Your task to perform on an android device: Check the weather Image 0: 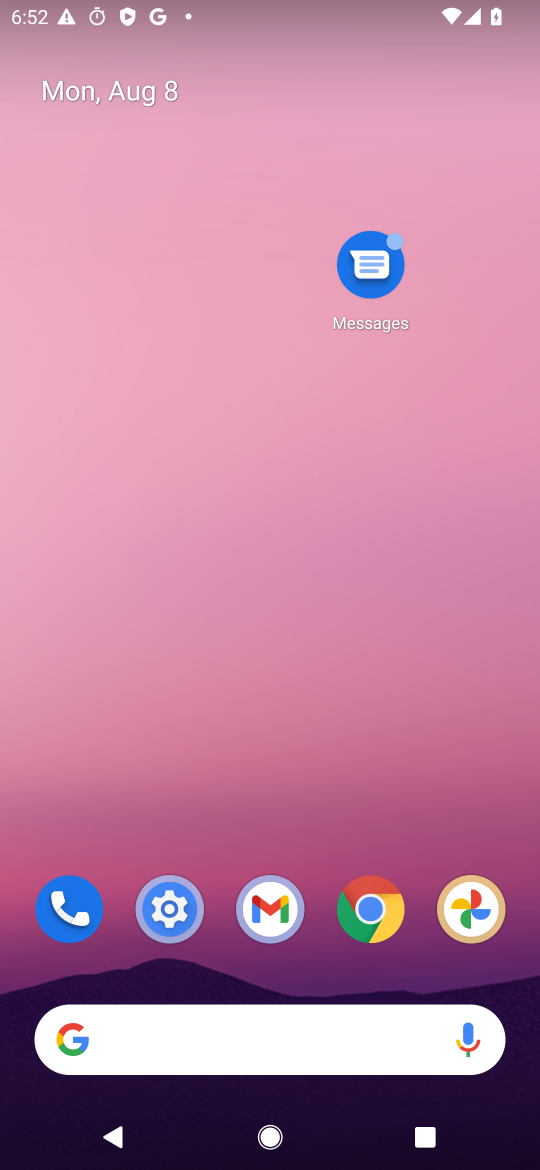
Step 0: press home button
Your task to perform on an android device: Check the weather Image 1: 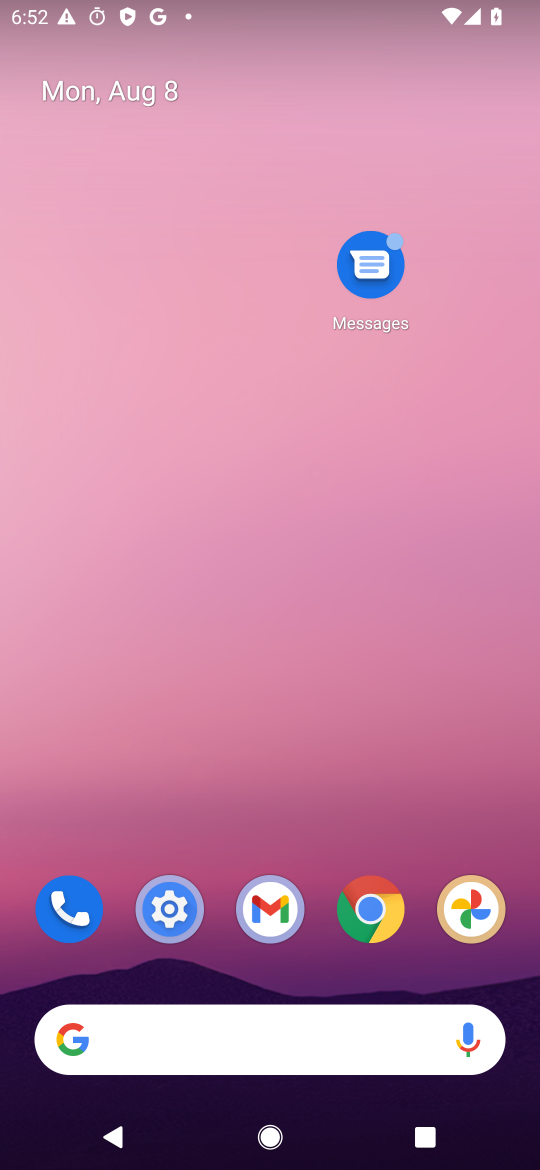
Step 1: click (198, 1025)
Your task to perform on an android device: Check the weather Image 2: 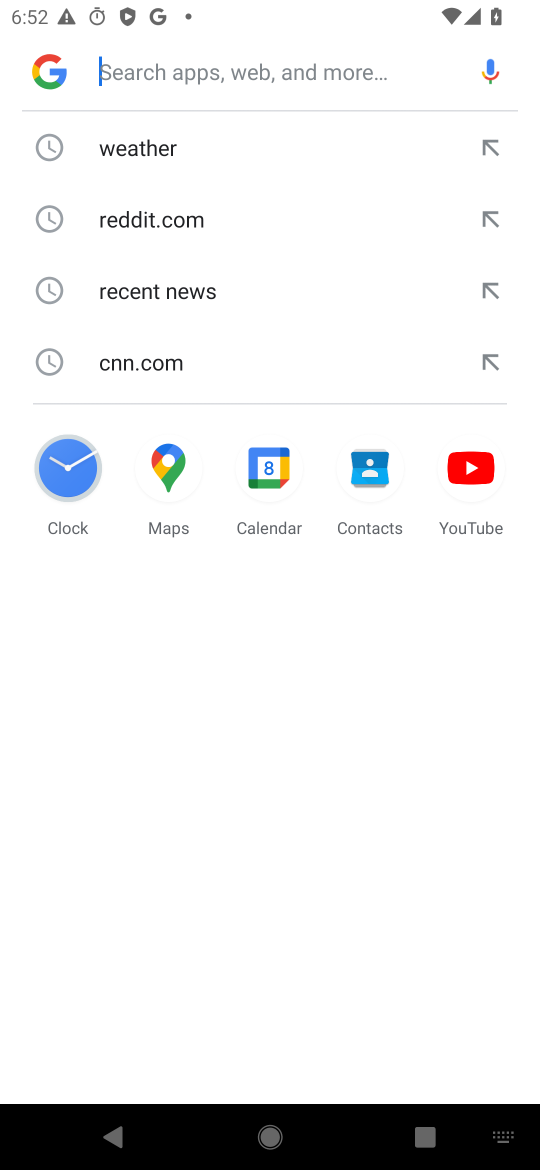
Step 2: click (120, 151)
Your task to perform on an android device: Check the weather Image 3: 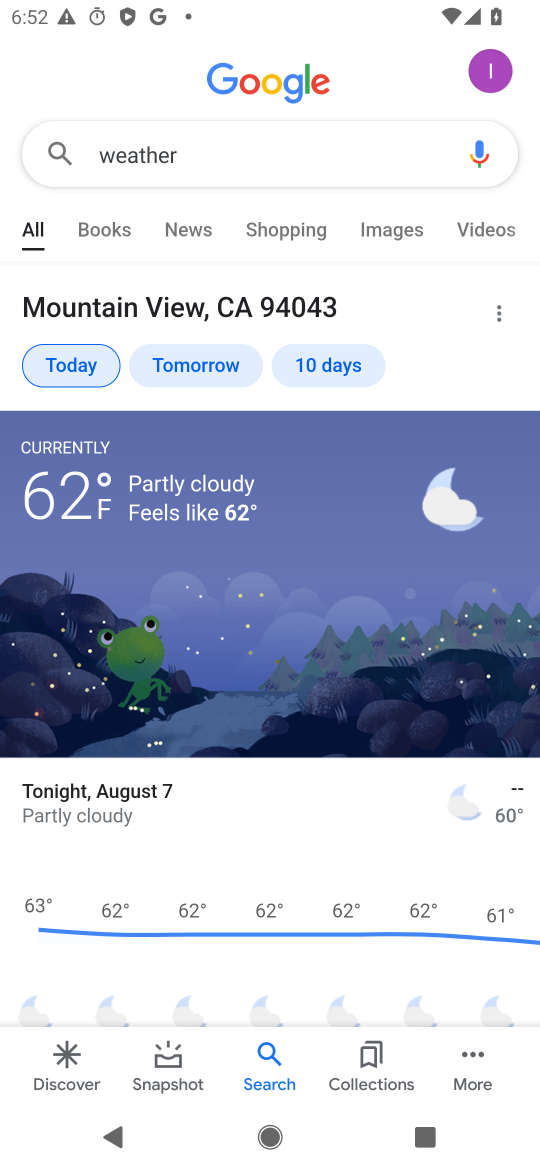
Step 3: task complete